Your task to perform on an android device: set the stopwatch Image 0: 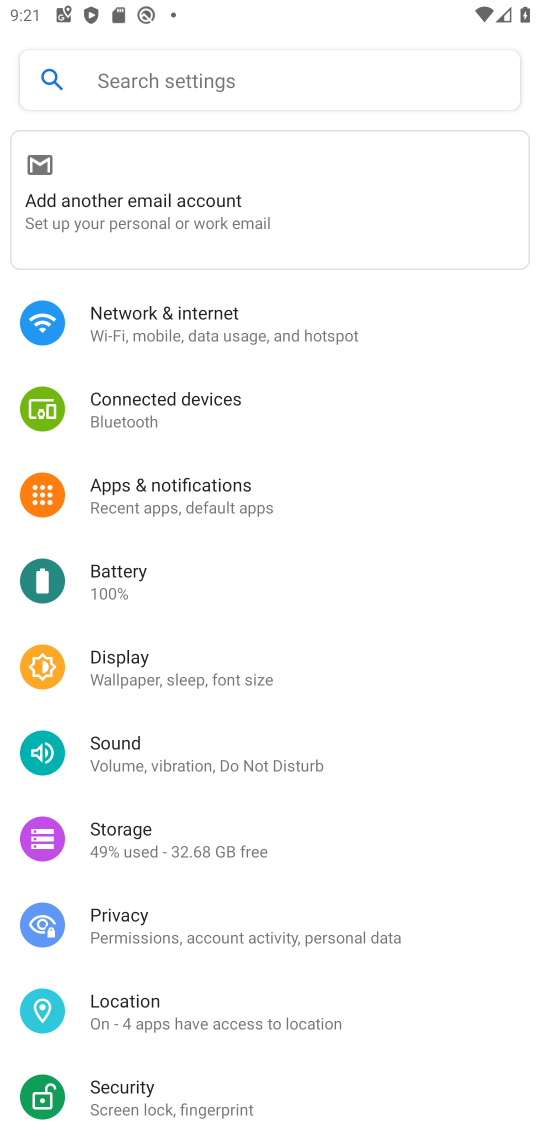
Step 0: press home button
Your task to perform on an android device: set the stopwatch Image 1: 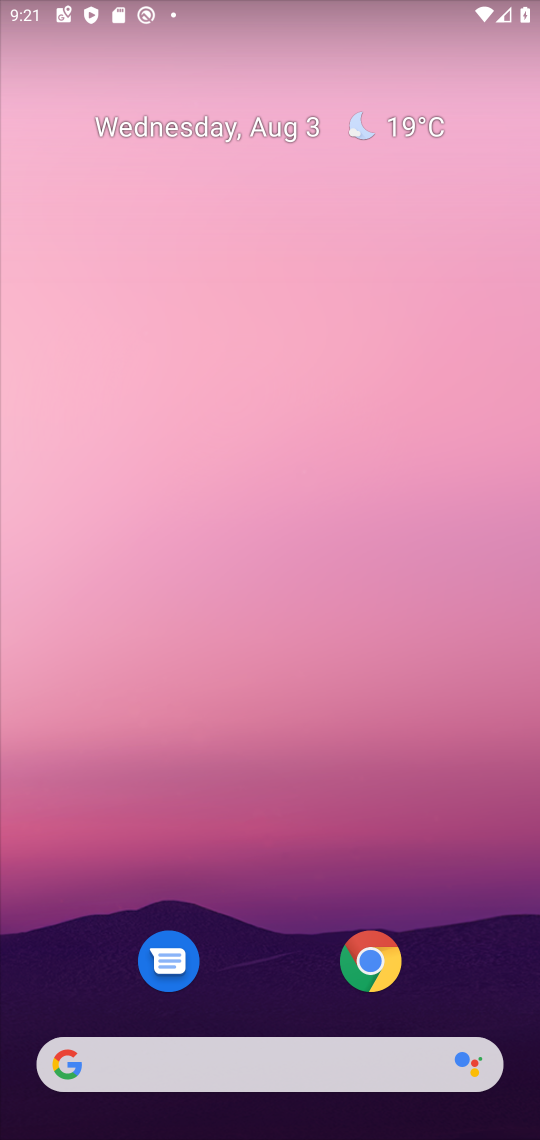
Step 1: drag from (250, 1021) to (310, 37)
Your task to perform on an android device: set the stopwatch Image 2: 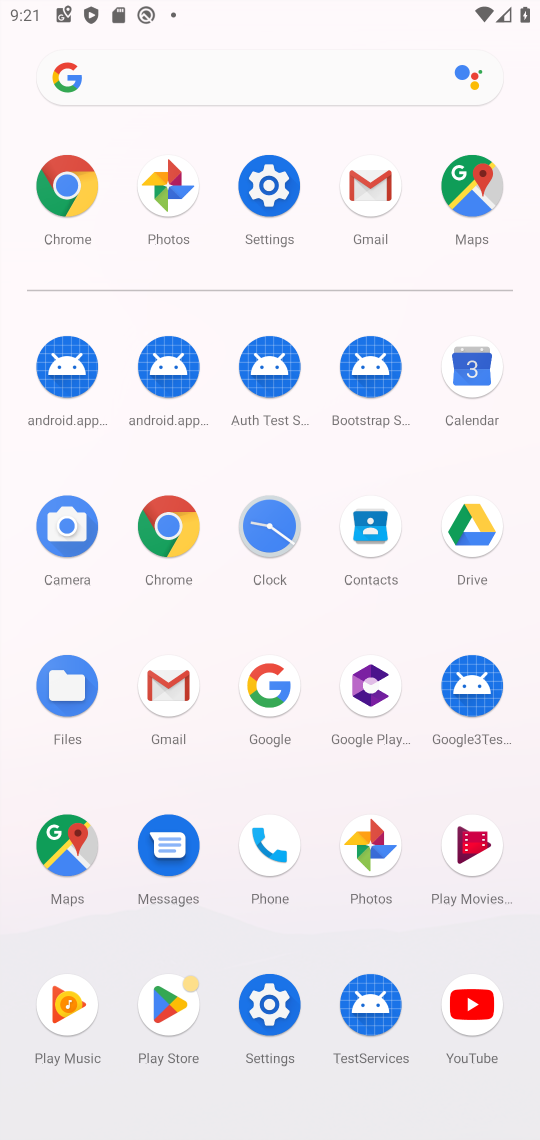
Step 2: click (285, 550)
Your task to perform on an android device: set the stopwatch Image 3: 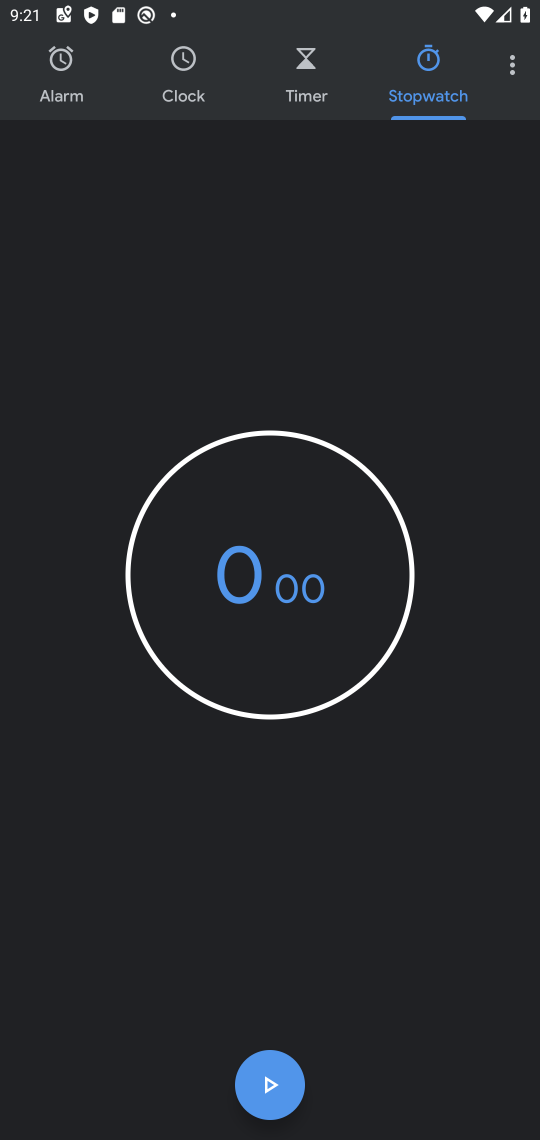
Step 3: click (395, 73)
Your task to perform on an android device: set the stopwatch Image 4: 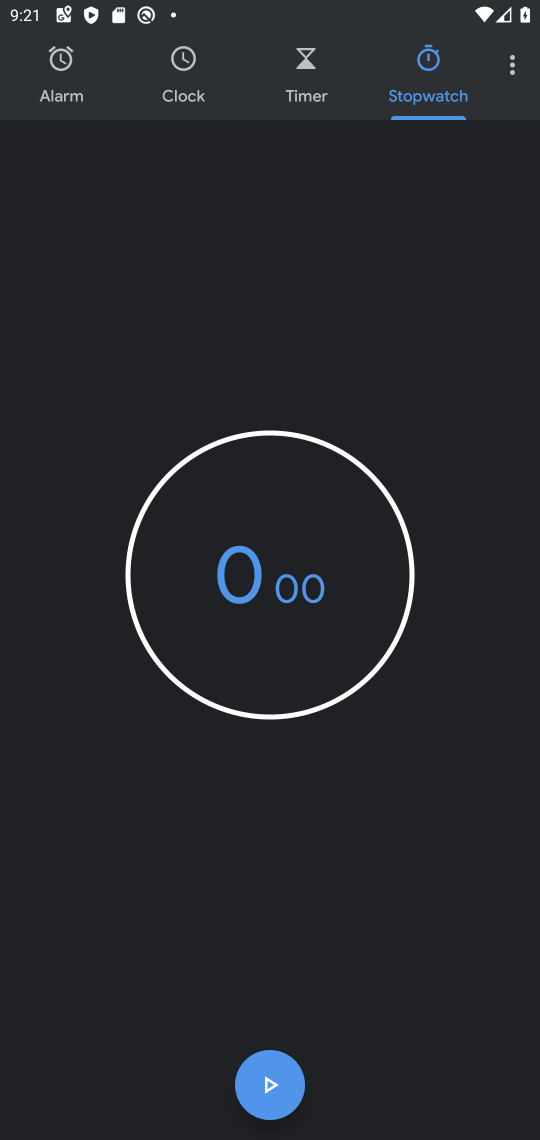
Step 4: task complete